Your task to perform on an android device: see creations saved in the google photos Image 0: 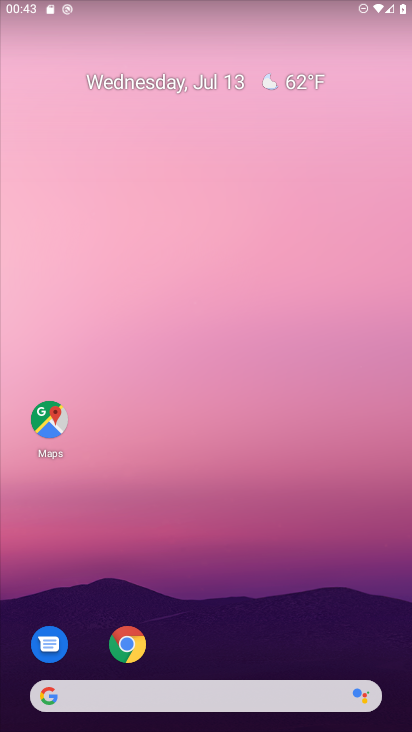
Step 0: drag from (244, 676) to (52, 71)
Your task to perform on an android device: see creations saved in the google photos Image 1: 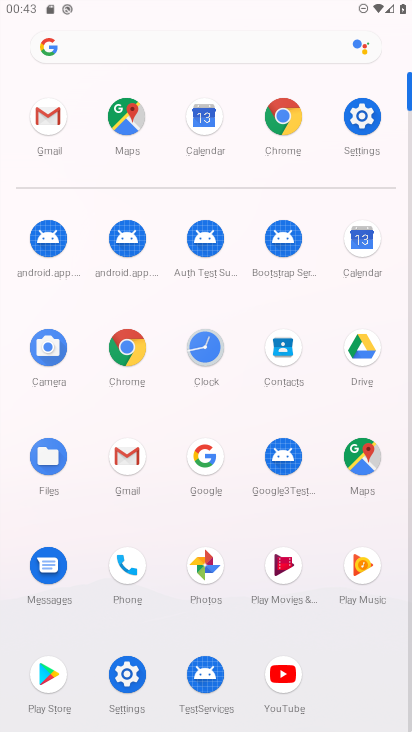
Step 1: click (199, 558)
Your task to perform on an android device: see creations saved in the google photos Image 2: 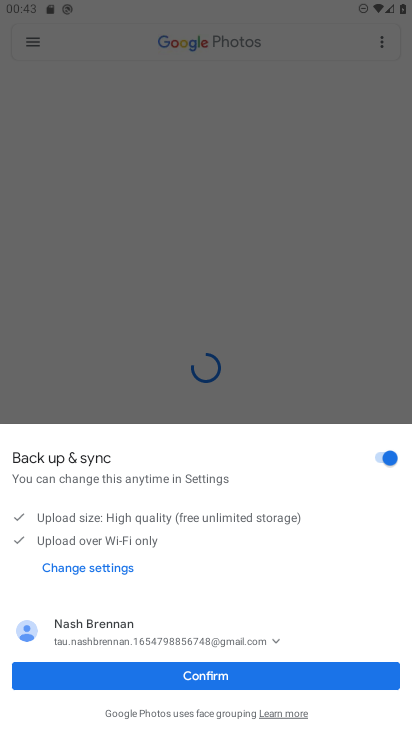
Step 2: click (230, 679)
Your task to perform on an android device: see creations saved in the google photos Image 3: 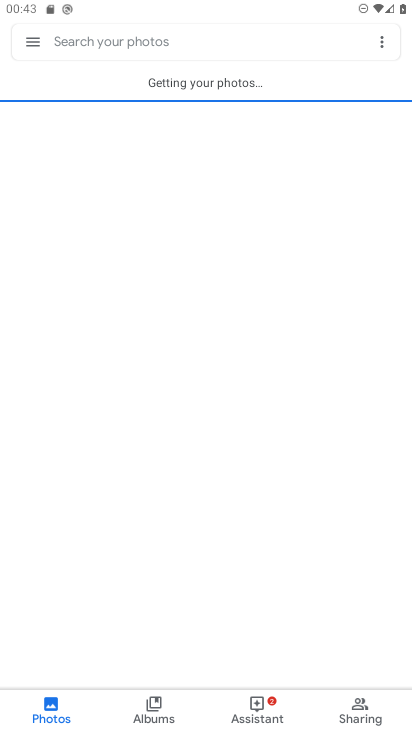
Step 3: click (142, 40)
Your task to perform on an android device: see creations saved in the google photos Image 4: 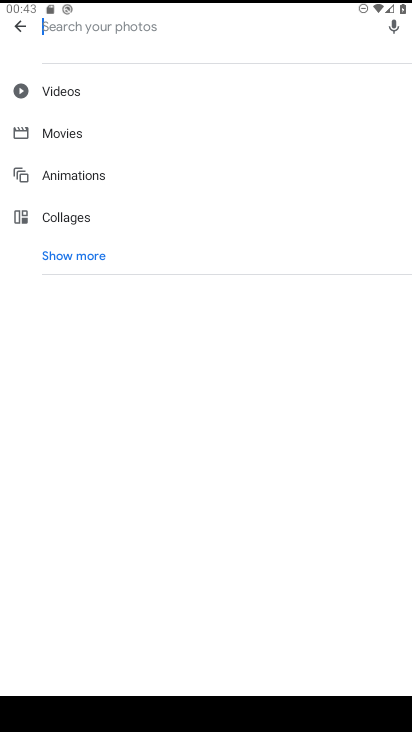
Step 4: click (53, 254)
Your task to perform on an android device: see creations saved in the google photos Image 5: 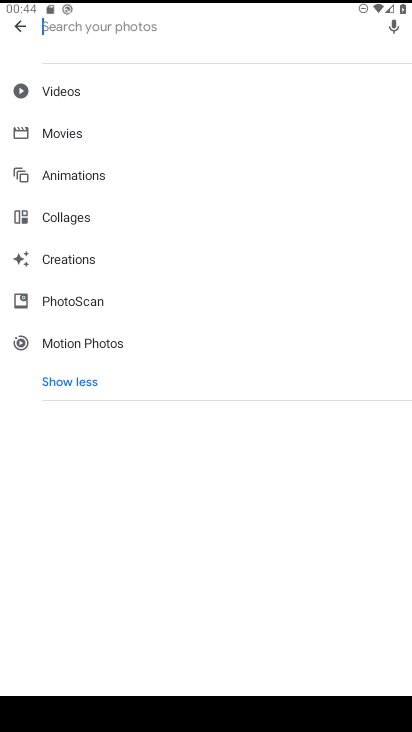
Step 5: click (53, 255)
Your task to perform on an android device: see creations saved in the google photos Image 6: 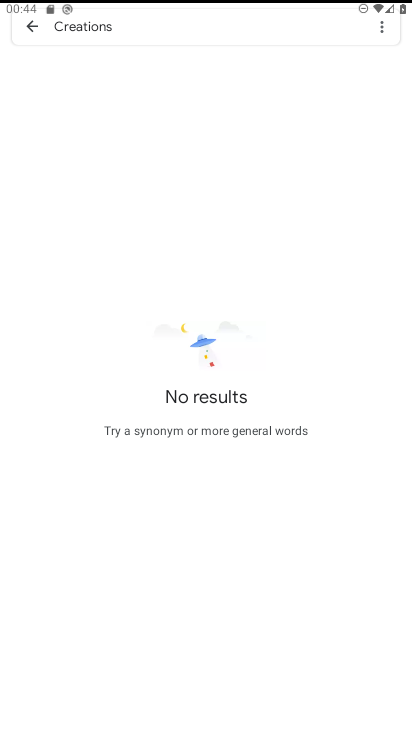
Step 6: task complete